Your task to perform on an android device: choose inbox layout in the gmail app Image 0: 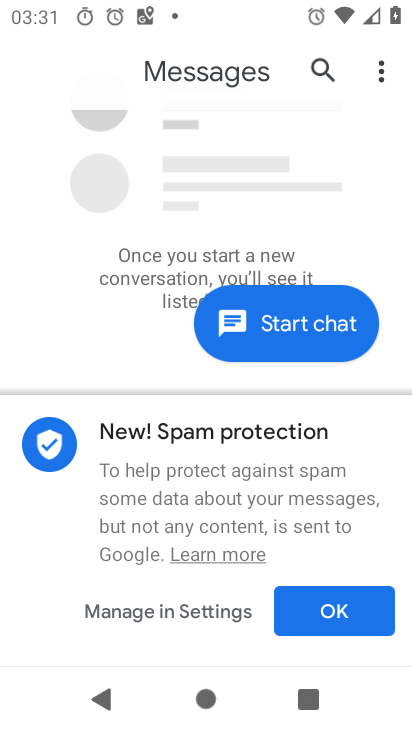
Step 0: press home button
Your task to perform on an android device: choose inbox layout in the gmail app Image 1: 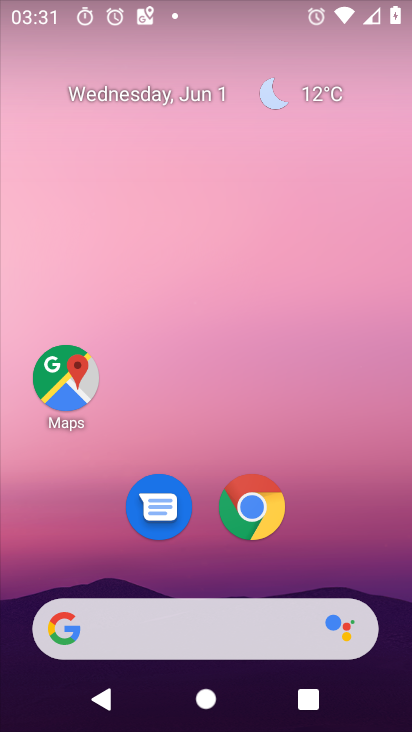
Step 1: drag from (338, 575) to (360, 20)
Your task to perform on an android device: choose inbox layout in the gmail app Image 2: 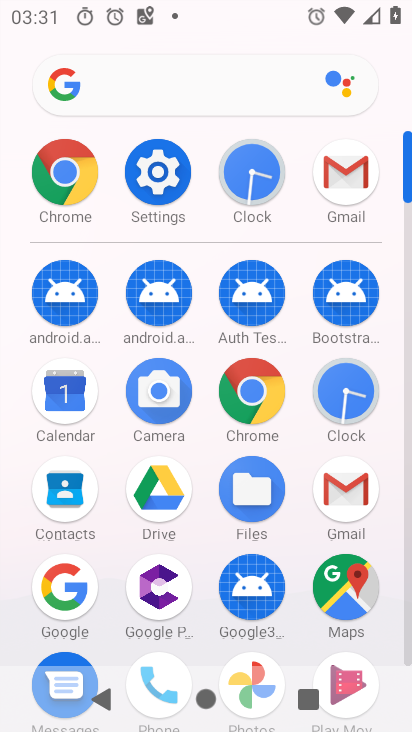
Step 2: click (343, 173)
Your task to perform on an android device: choose inbox layout in the gmail app Image 3: 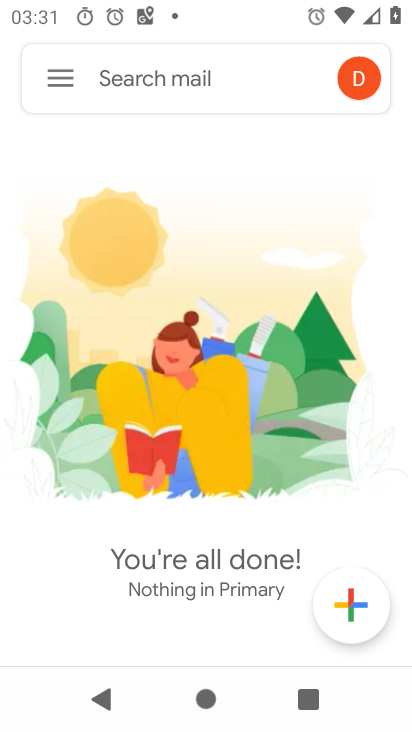
Step 3: click (61, 85)
Your task to perform on an android device: choose inbox layout in the gmail app Image 4: 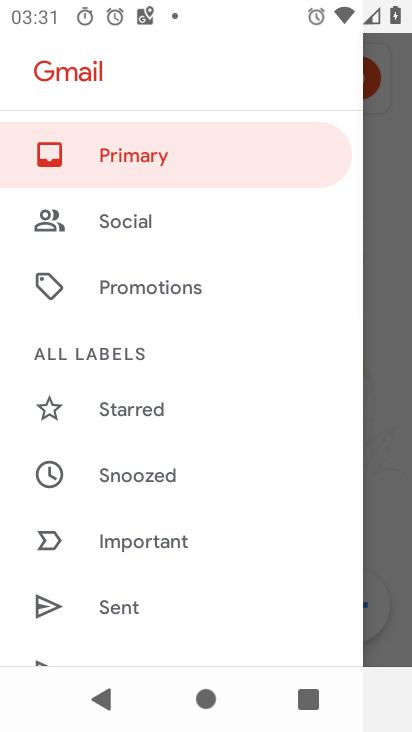
Step 4: drag from (145, 597) to (155, 437)
Your task to perform on an android device: choose inbox layout in the gmail app Image 5: 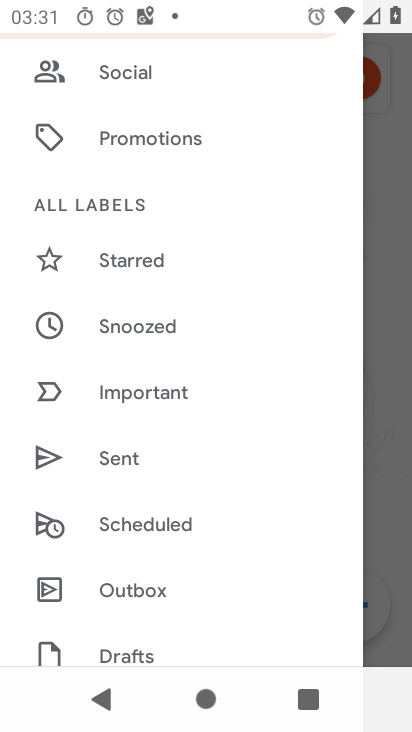
Step 5: drag from (238, 596) to (246, 381)
Your task to perform on an android device: choose inbox layout in the gmail app Image 6: 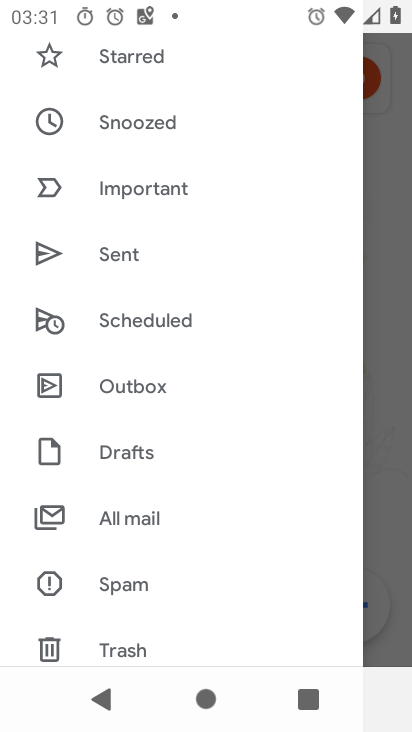
Step 6: drag from (202, 567) to (210, 321)
Your task to perform on an android device: choose inbox layout in the gmail app Image 7: 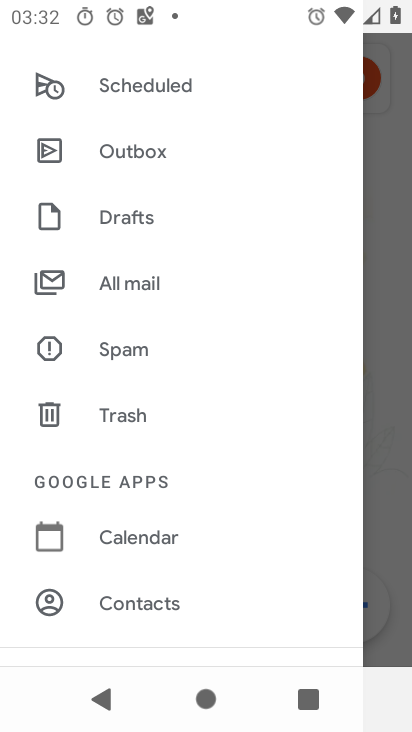
Step 7: drag from (217, 588) to (229, 381)
Your task to perform on an android device: choose inbox layout in the gmail app Image 8: 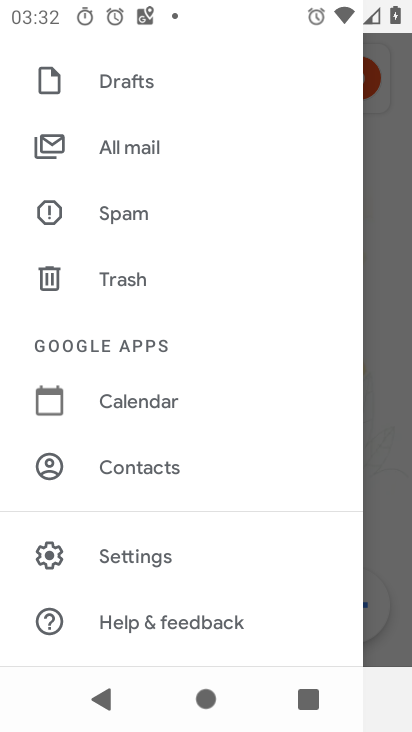
Step 8: click (96, 556)
Your task to perform on an android device: choose inbox layout in the gmail app Image 9: 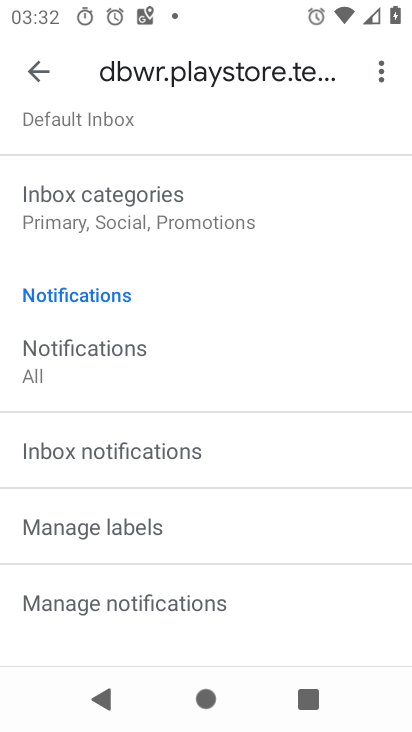
Step 9: drag from (173, 316) to (190, 505)
Your task to perform on an android device: choose inbox layout in the gmail app Image 10: 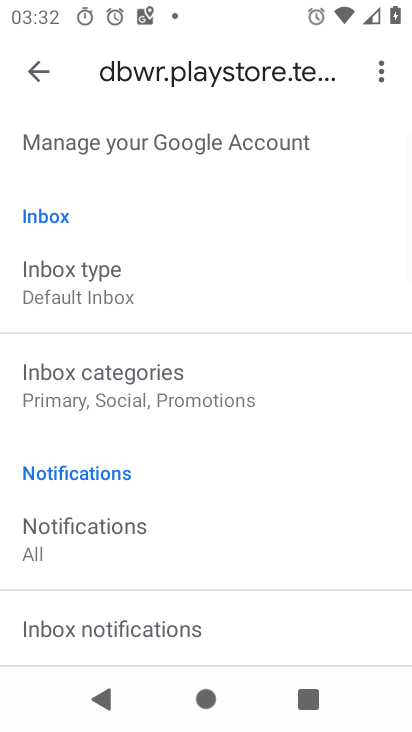
Step 10: click (67, 280)
Your task to perform on an android device: choose inbox layout in the gmail app Image 11: 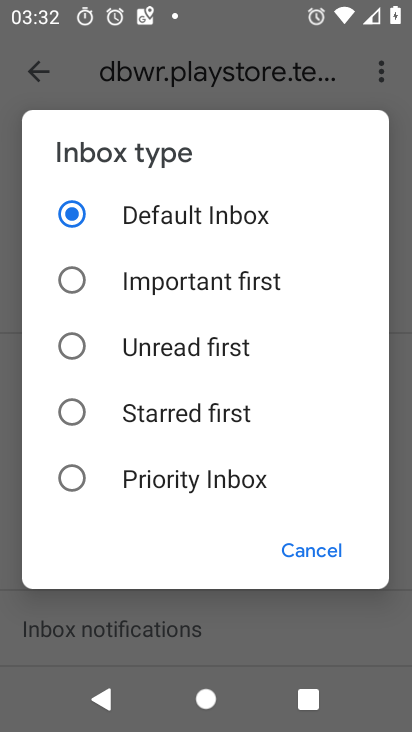
Step 11: click (128, 345)
Your task to perform on an android device: choose inbox layout in the gmail app Image 12: 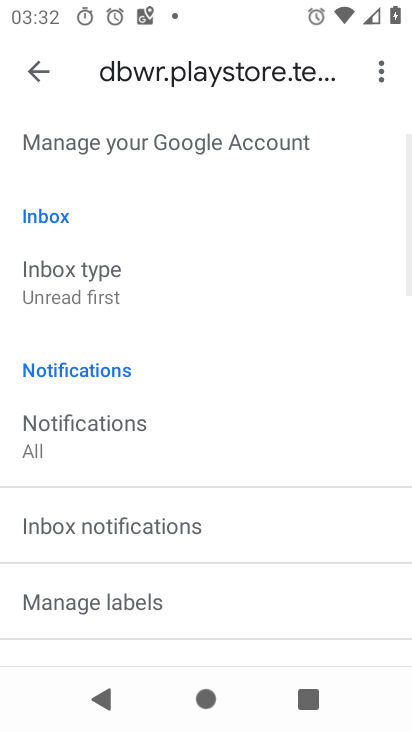
Step 12: task complete